Your task to perform on an android device: change keyboard looks Image 0: 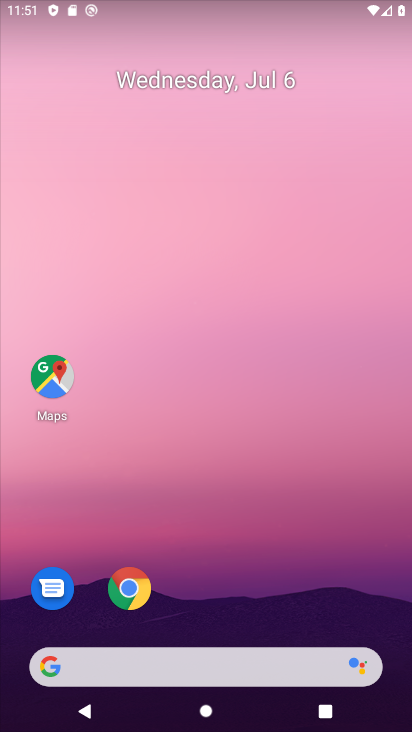
Step 0: drag from (214, 610) to (307, 109)
Your task to perform on an android device: change keyboard looks Image 1: 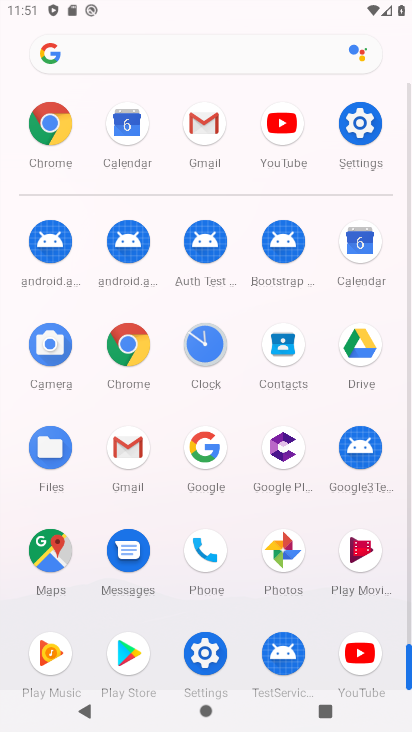
Step 1: click (370, 132)
Your task to perform on an android device: change keyboard looks Image 2: 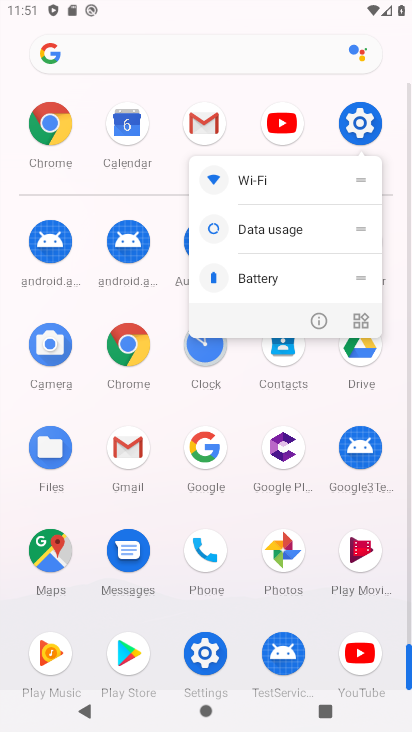
Step 2: click (318, 329)
Your task to perform on an android device: change keyboard looks Image 3: 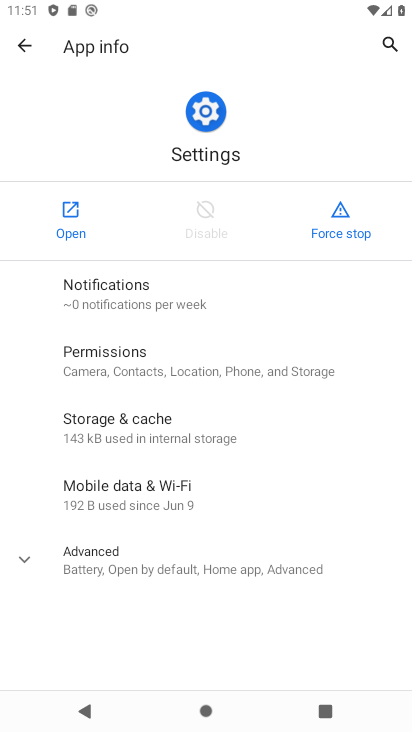
Step 3: click (74, 207)
Your task to perform on an android device: change keyboard looks Image 4: 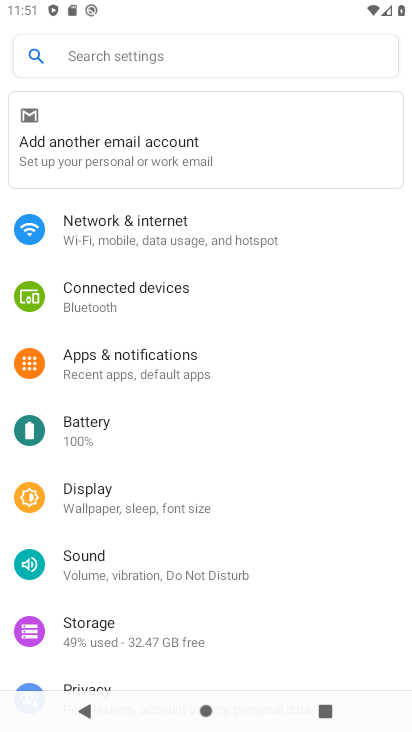
Step 4: drag from (141, 607) to (253, 36)
Your task to perform on an android device: change keyboard looks Image 5: 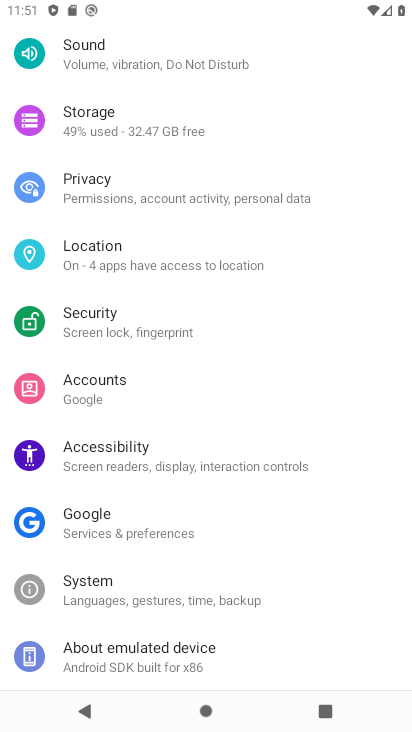
Step 5: drag from (153, 586) to (256, 203)
Your task to perform on an android device: change keyboard looks Image 6: 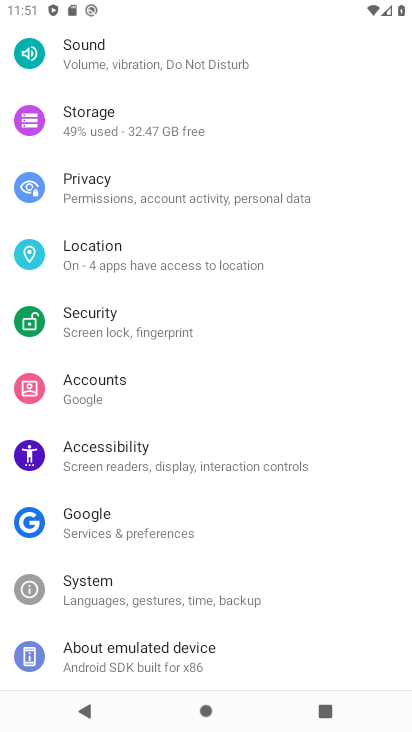
Step 6: click (107, 579)
Your task to perform on an android device: change keyboard looks Image 7: 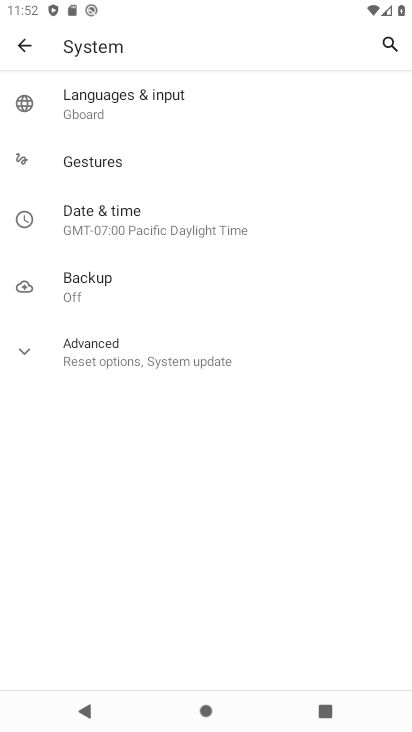
Step 7: click (171, 104)
Your task to perform on an android device: change keyboard looks Image 8: 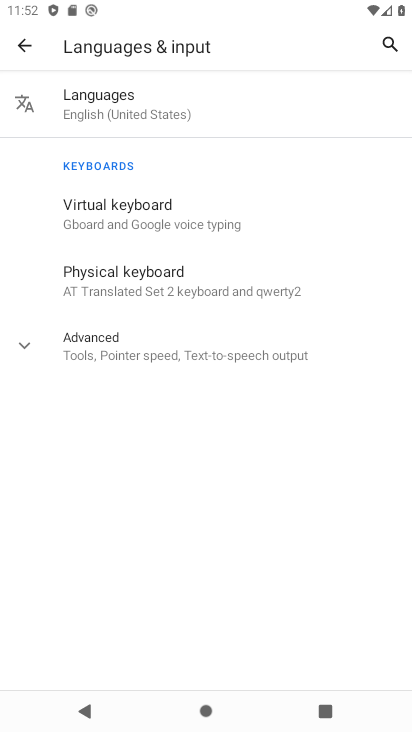
Step 8: click (164, 104)
Your task to perform on an android device: change keyboard looks Image 9: 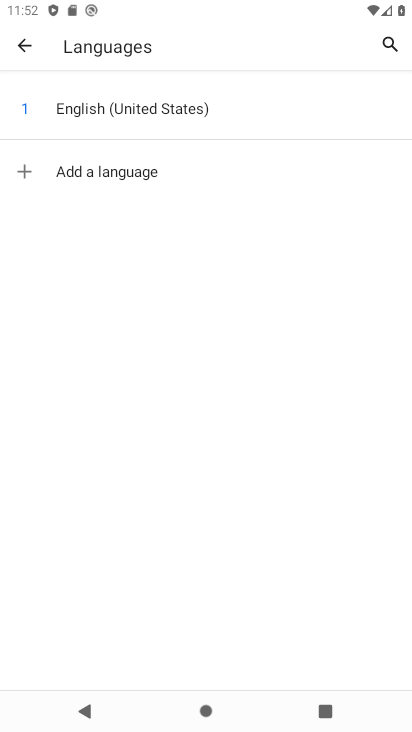
Step 9: click (27, 49)
Your task to perform on an android device: change keyboard looks Image 10: 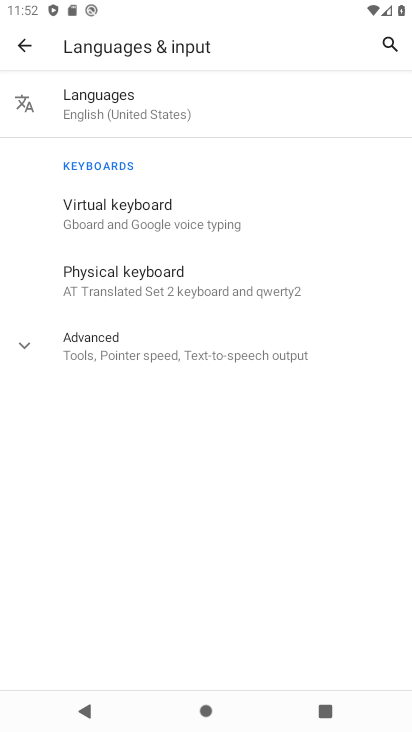
Step 10: click (150, 219)
Your task to perform on an android device: change keyboard looks Image 11: 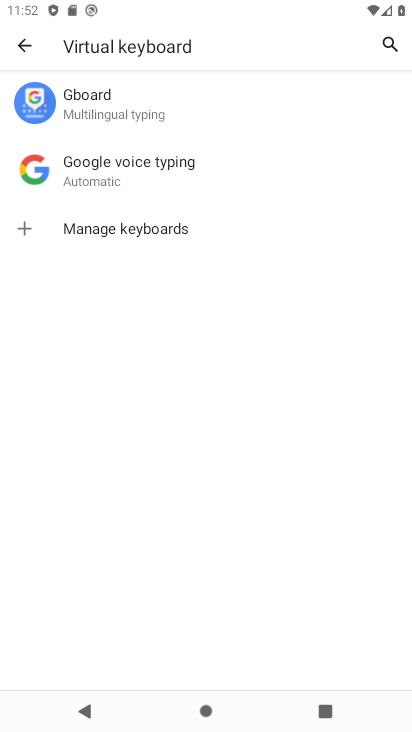
Step 11: click (175, 106)
Your task to perform on an android device: change keyboard looks Image 12: 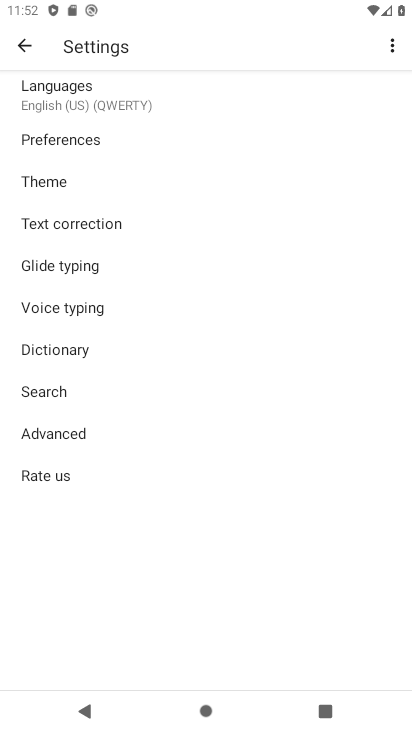
Step 12: click (70, 187)
Your task to perform on an android device: change keyboard looks Image 13: 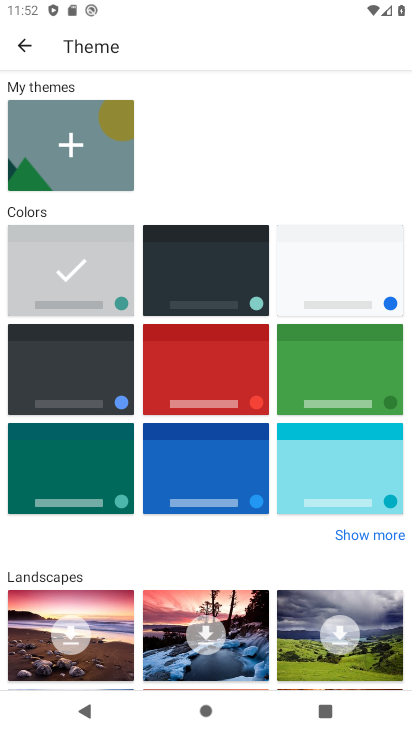
Step 13: click (197, 265)
Your task to perform on an android device: change keyboard looks Image 14: 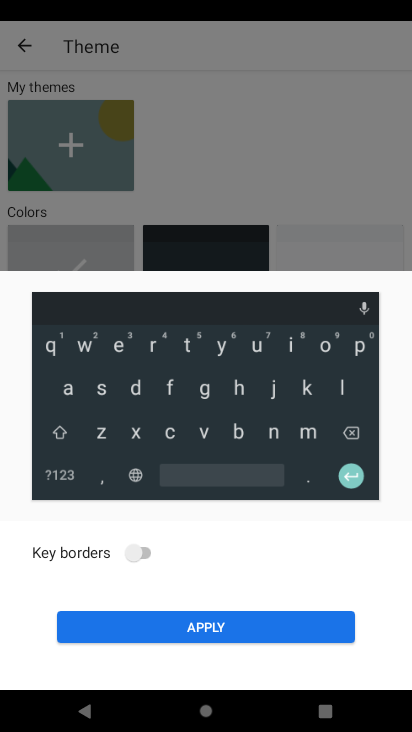
Step 14: click (138, 626)
Your task to perform on an android device: change keyboard looks Image 15: 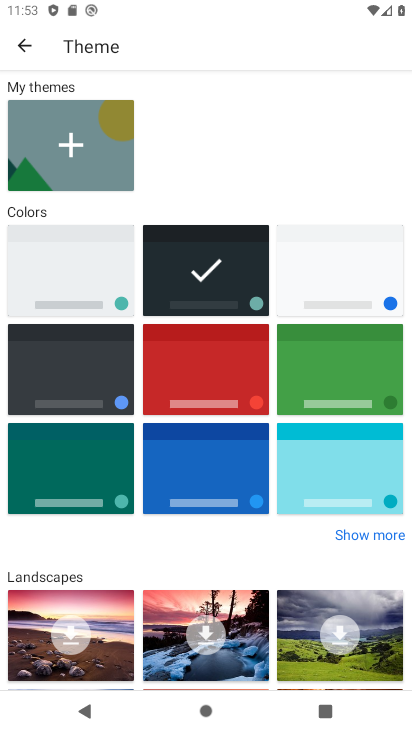
Step 15: task complete